Your task to perform on an android device: turn on wifi Image 0: 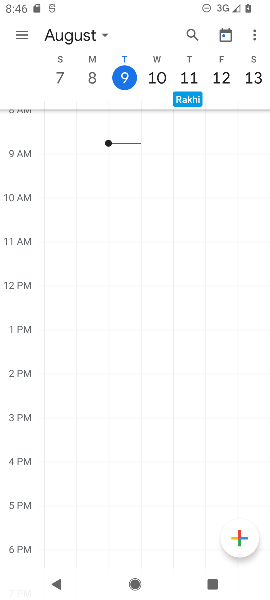
Step 0: press home button
Your task to perform on an android device: turn on wifi Image 1: 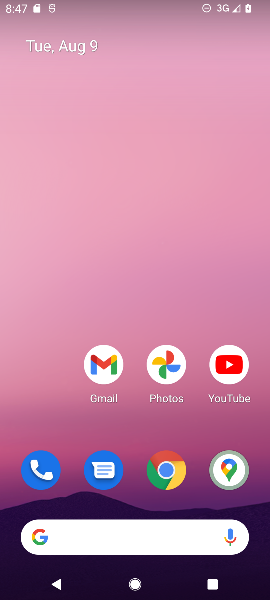
Step 1: drag from (110, 544) to (126, 185)
Your task to perform on an android device: turn on wifi Image 2: 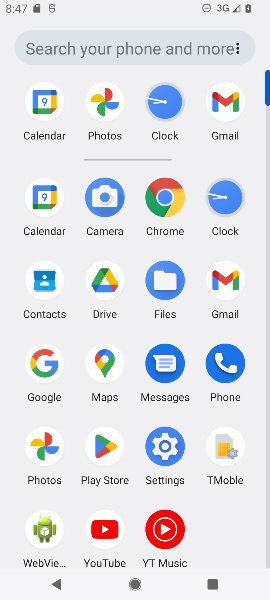
Step 2: click (165, 447)
Your task to perform on an android device: turn on wifi Image 3: 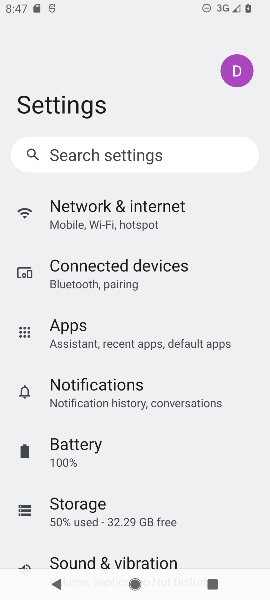
Step 3: click (157, 215)
Your task to perform on an android device: turn on wifi Image 4: 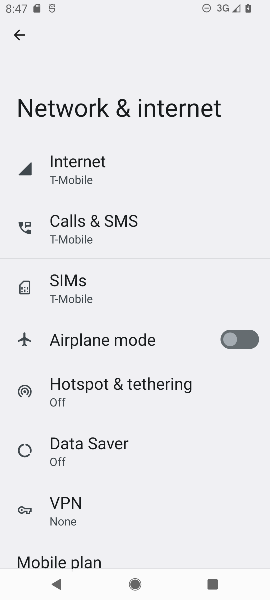
Step 4: click (83, 178)
Your task to perform on an android device: turn on wifi Image 5: 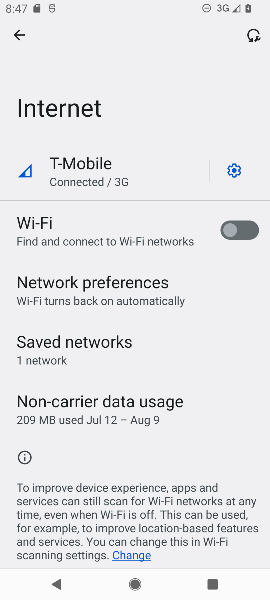
Step 5: click (232, 235)
Your task to perform on an android device: turn on wifi Image 6: 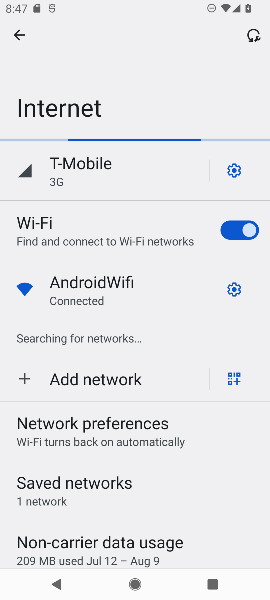
Step 6: task complete